Your task to perform on an android device: Go to Yahoo.com Image 0: 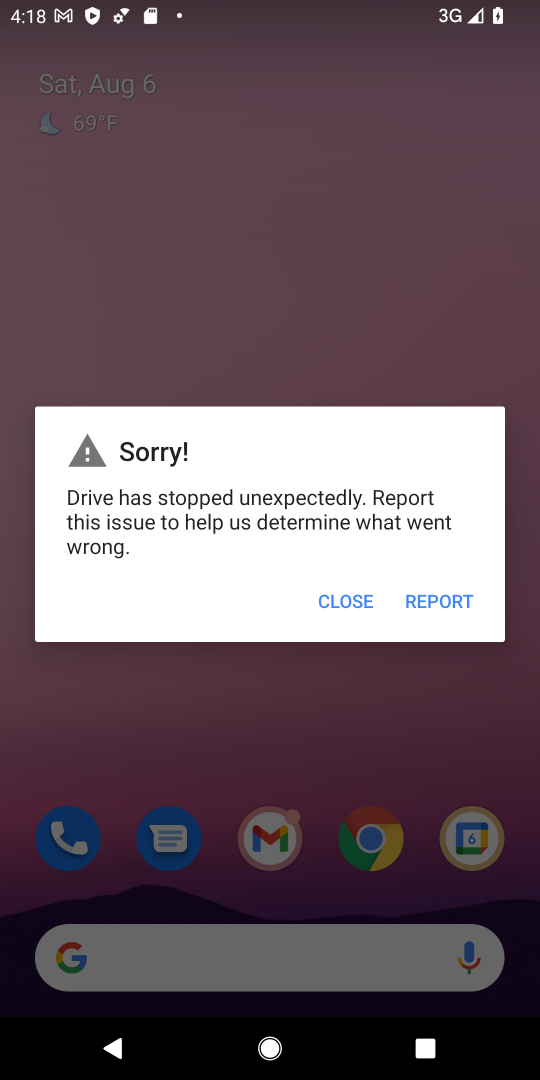
Step 0: press home button
Your task to perform on an android device: Go to Yahoo.com Image 1: 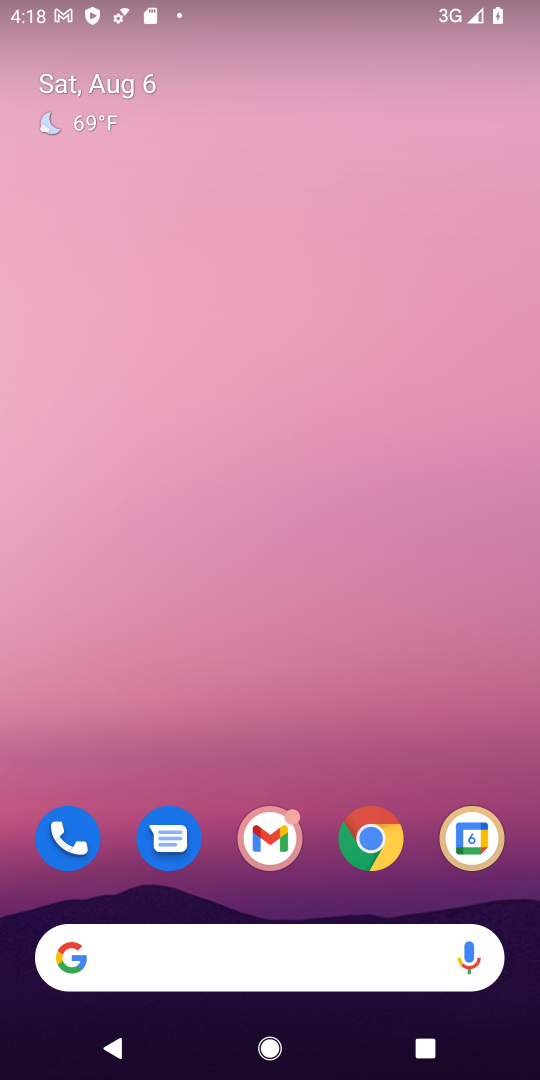
Step 1: click (325, 834)
Your task to perform on an android device: Go to Yahoo.com Image 2: 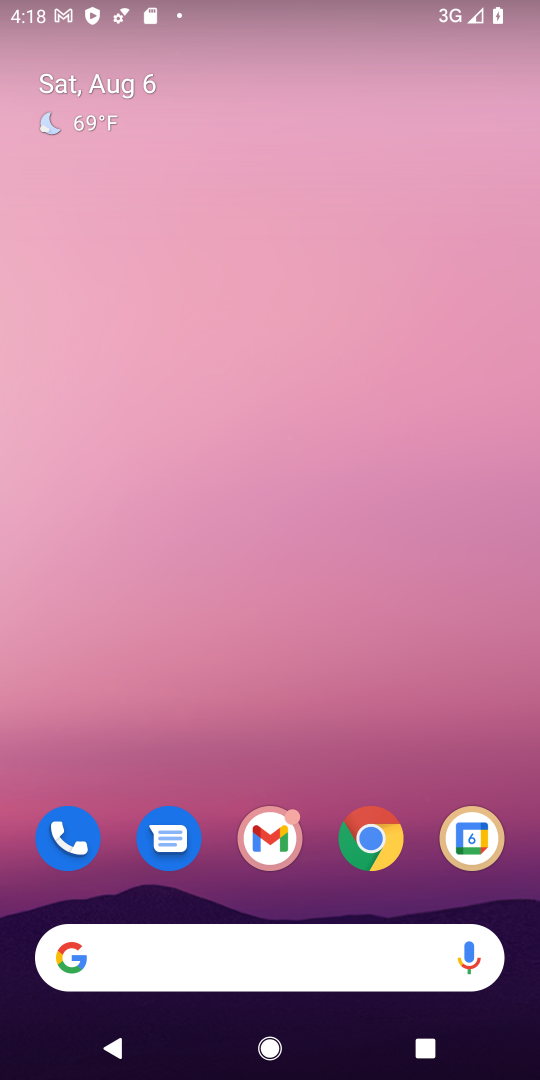
Step 2: click (382, 834)
Your task to perform on an android device: Go to Yahoo.com Image 3: 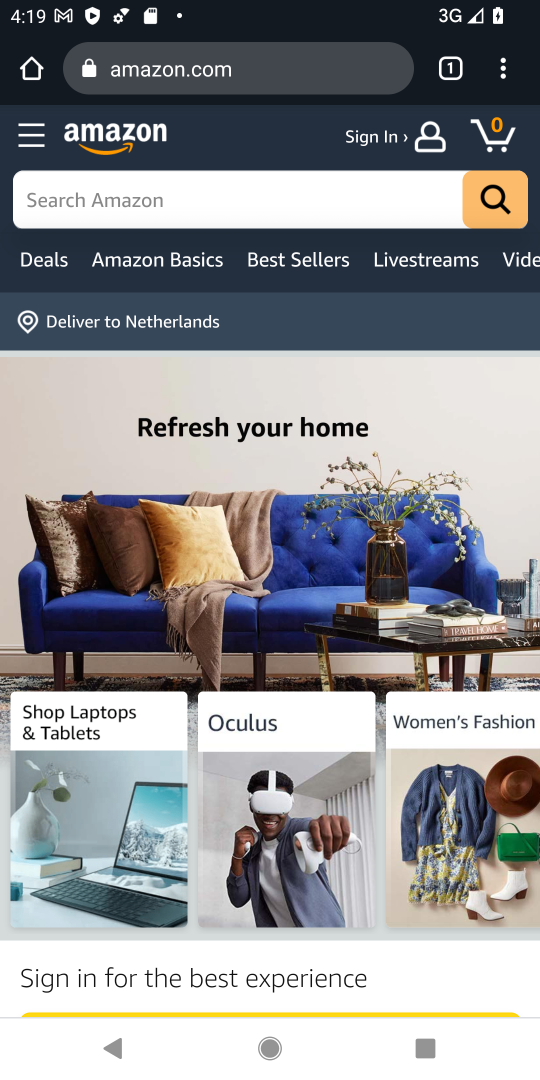
Step 3: click (429, 77)
Your task to perform on an android device: Go to Yahoo.com Image 4: 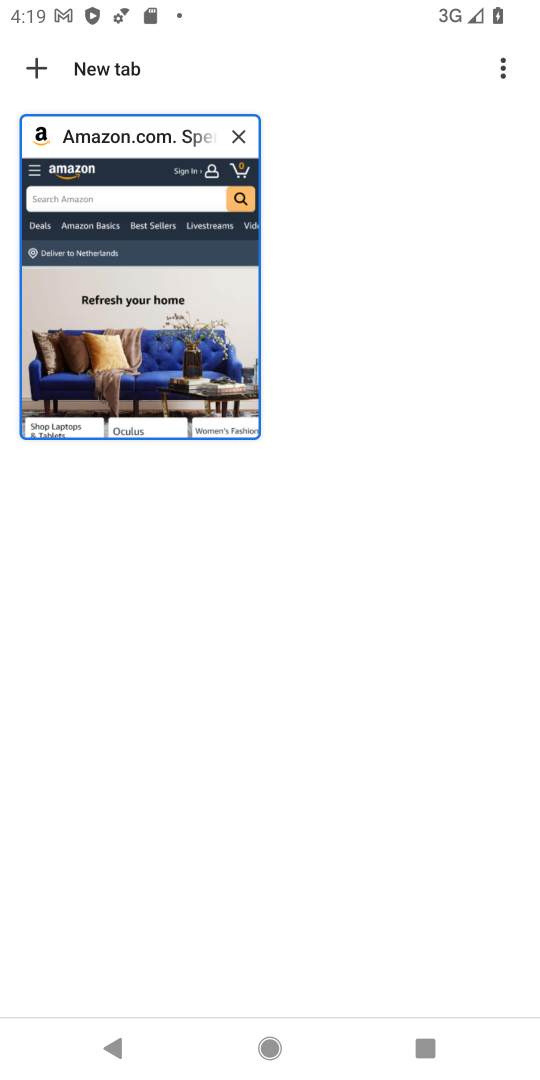
Step 4: click (232, 136)
Your task to perform on an android device: Go to Yahoo.com Image 5: 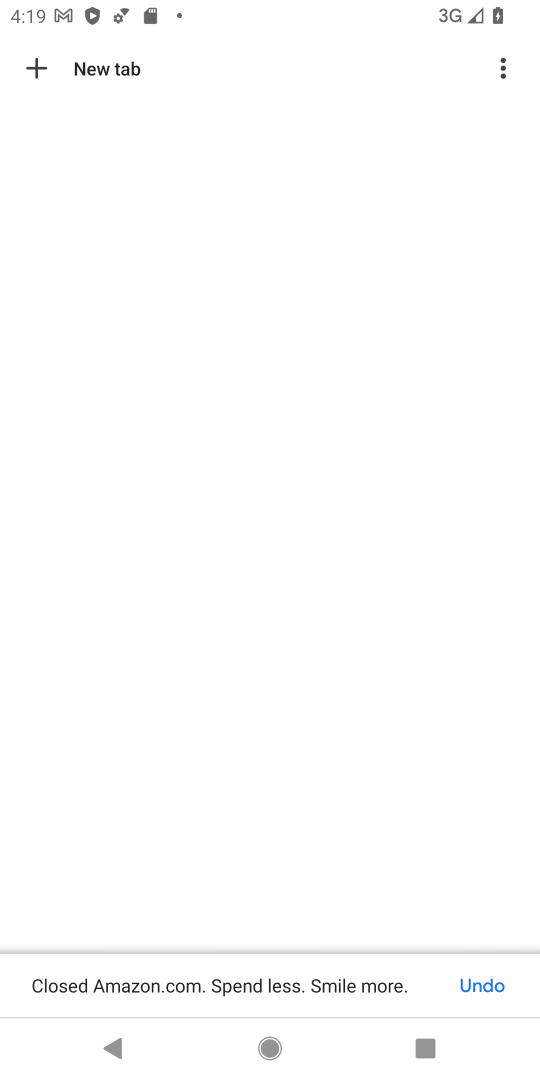
Step 5: click (52, 76)
Your task to perform on an android device: Go to Yahoo.com Image 6: 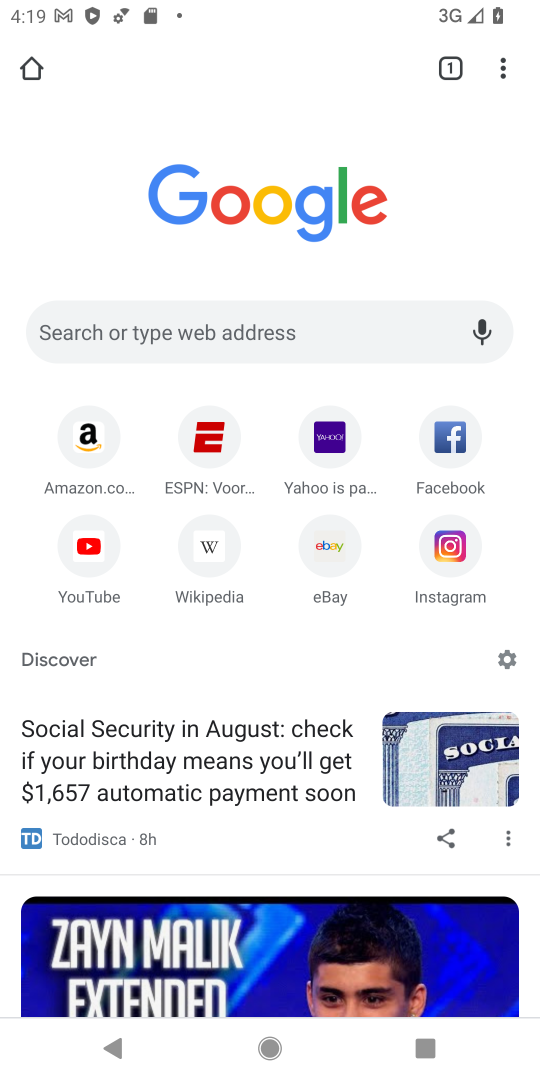
Step 6: click (342, 438)
Your task to perform on an android device: Go to Yahoo.com Image 7: 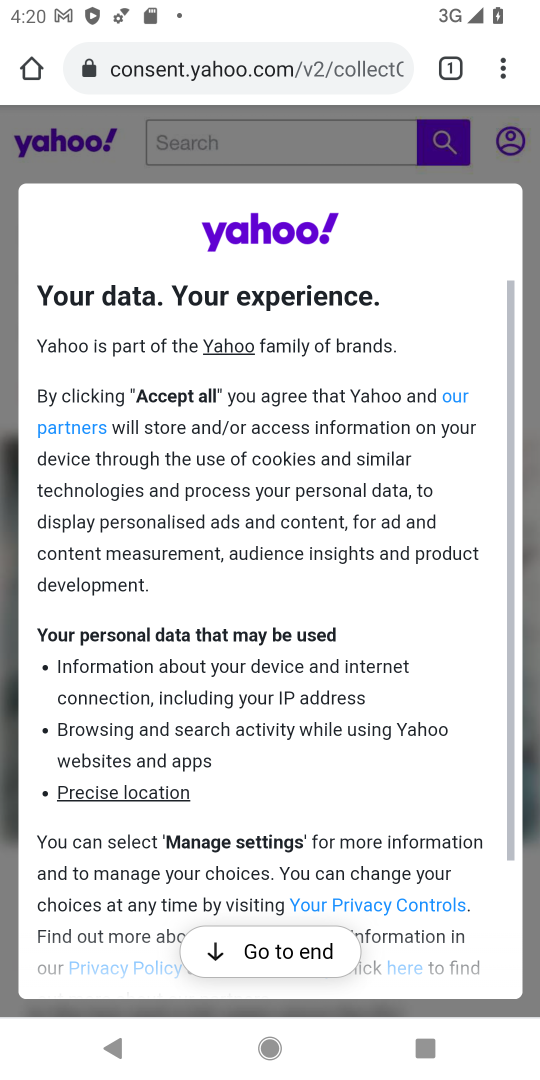
Step 7: task complete